Your task to perform on an android device: Open Chrome and go to the settings page Image 0: 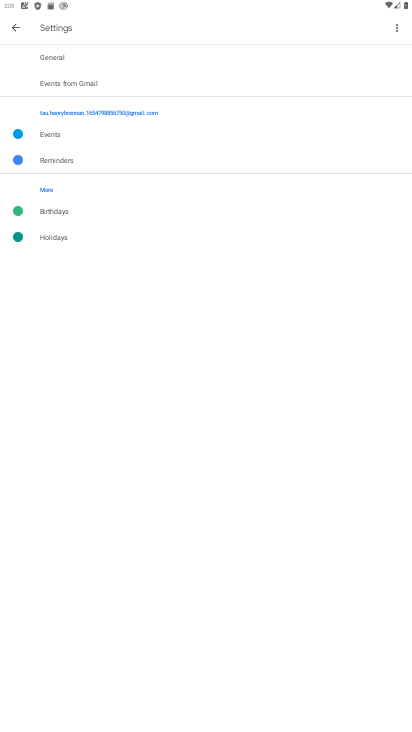
Step 0: press home button
Your task to perform on an android device: Open Chrome and go to the settings page Image 1: 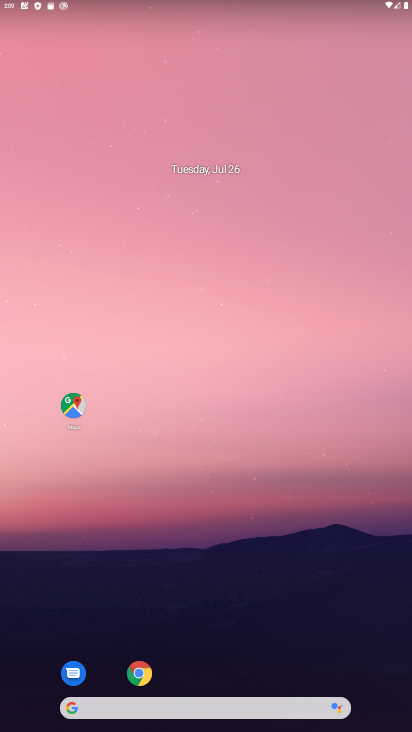
Step 1: click (141, 673)
Your task to perform on an android device: Open Chrome and go to the settings page Image 2: 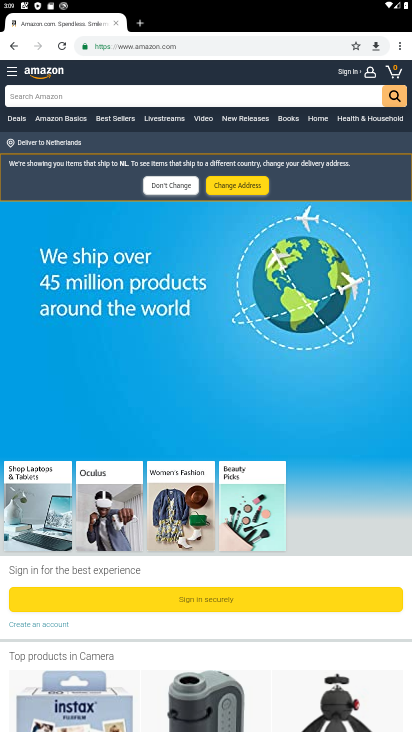
Step 2: click (399, 48)
Your task to perform on an android device: Open Chrome and go to the settings page Image 3: 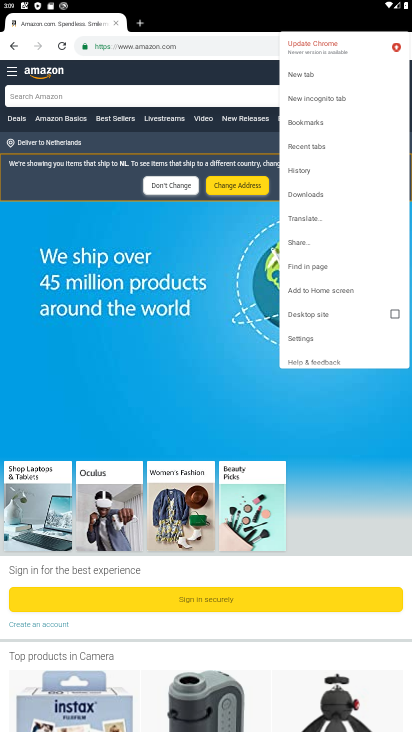
Step 3: click (309, 338)
Your task to perform on an android device: Open Chrome and go to the settings page Image 4: 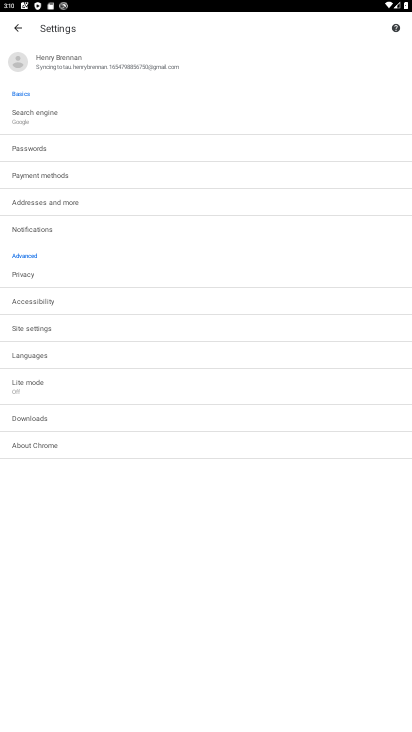
Step 4: task complete